Your task to perform on an android device: Open Google Image 0: 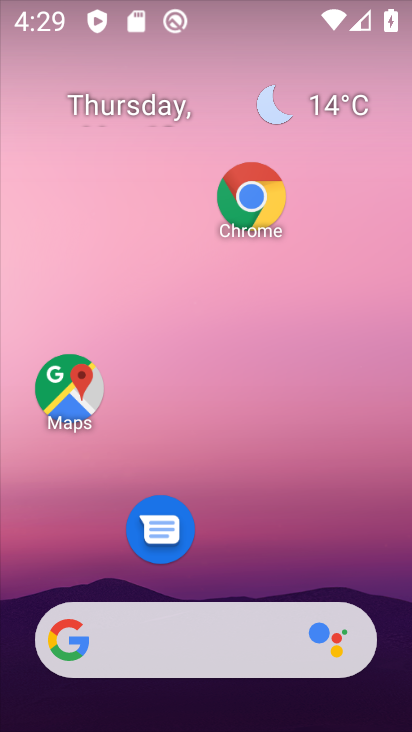
Step 0: drag from (221, 576) to (238, 279)
Your task to perform on an android device: Open Google Image 1: 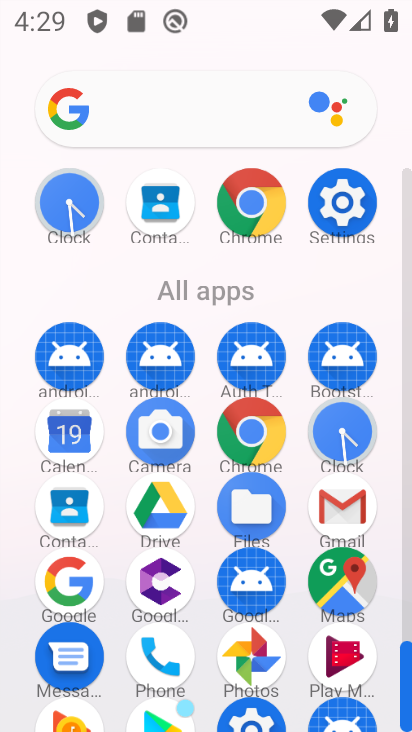
Step 1: drag from (196, 565) to (199, 293)
Your task to perform on an android device: Open Google Image 2: 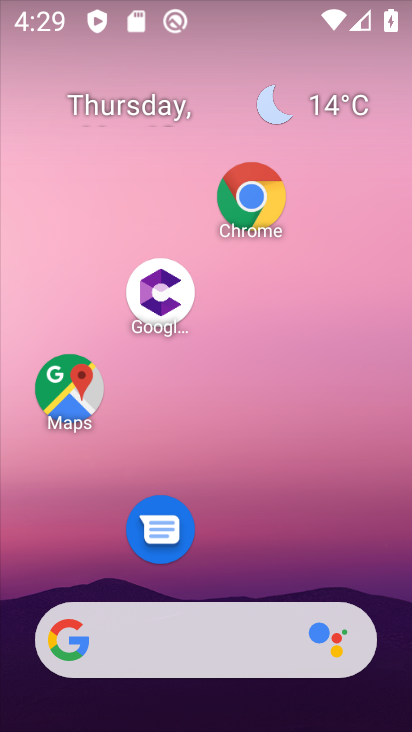
Step 2: drag from (262, 542) to (293, 260)
Your task to perform on an android device: Open Google Image 3: 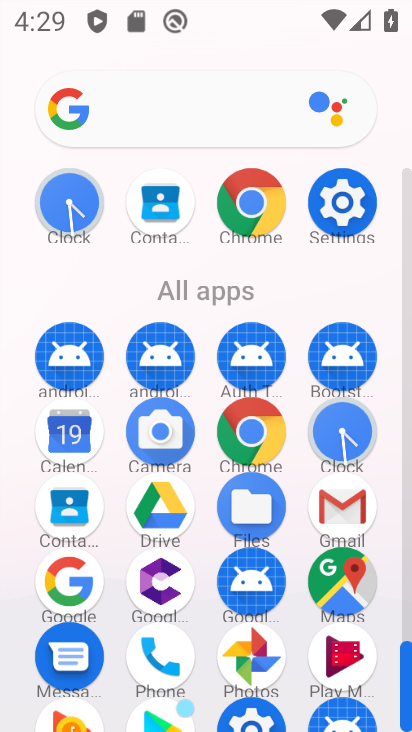
Step 3: click (57, 580)
Your task to perform on an android device: Open Google Image 4: 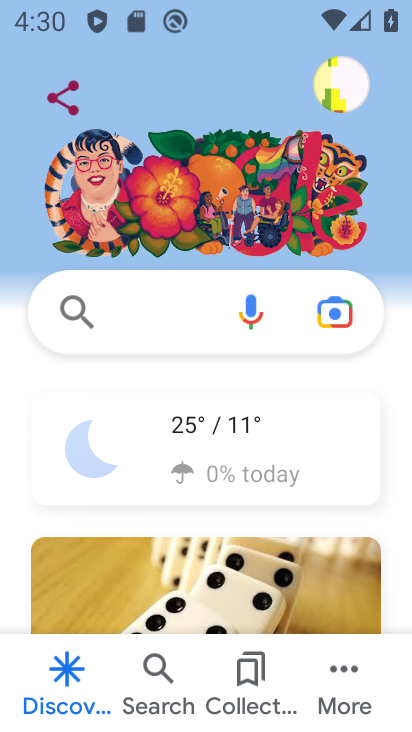
Step 4: task complete